Your task to perform on an android device: What's the weather going to be this weekend? Image 0: 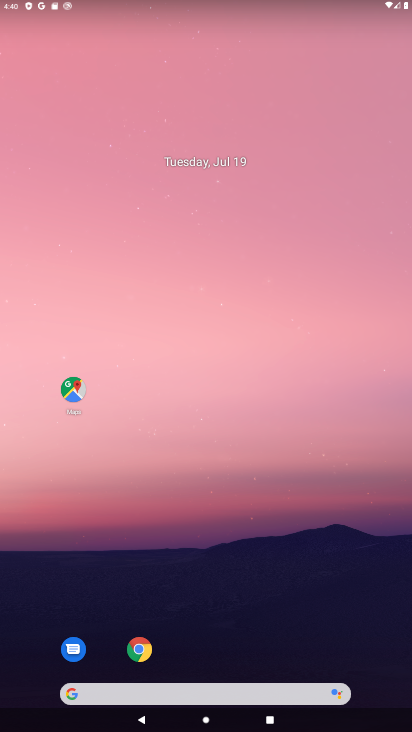
Step 0: press home button
Your task to perform on an android device: What's the weather going to be this weekend? Image 1: 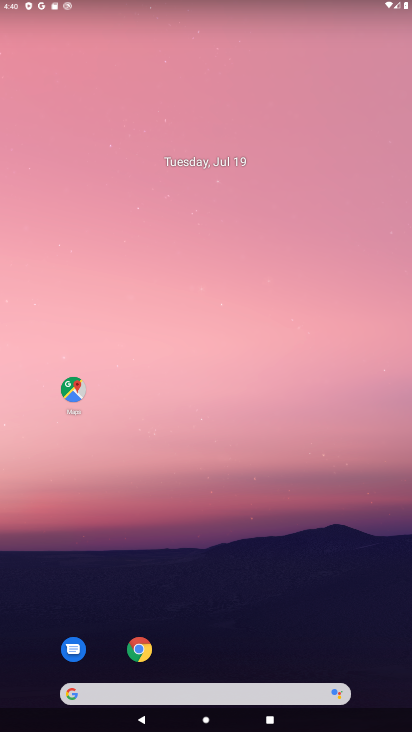
Step 1: drag from (220, 665) to (212, 1)
Your task to perform on an android device: What's the weather going to be this weekend? Image 2: 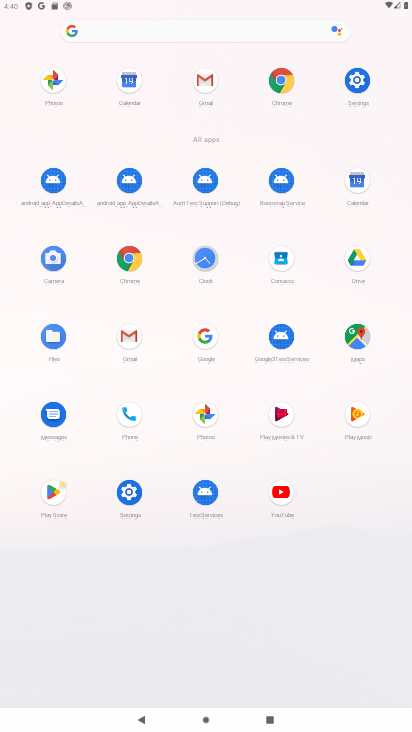
Step 2: press home button
Your task to perform on an android device: What's the weather going to be this weekend? Image 3: 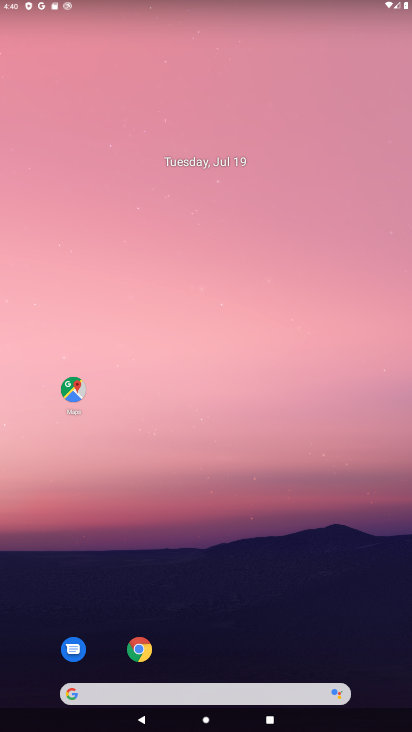
Step 3: click (152, 691)
Your task to perform on an android device: What's the weather going to be this weekend? Image 4: 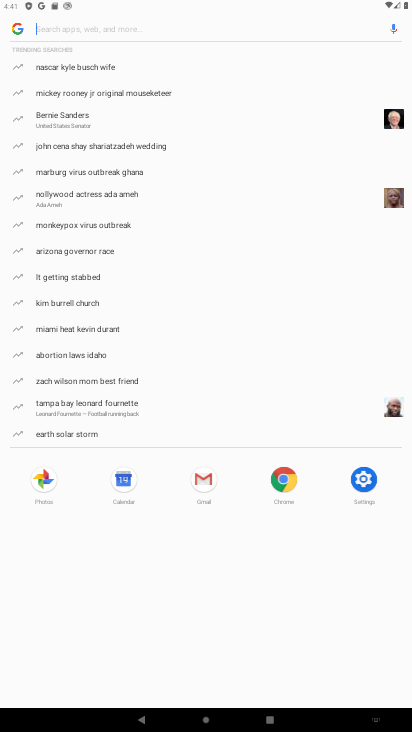
Step 4: type "weather"
Your task to perform on an android device: What's the weather going to be this weekend? Image 5: 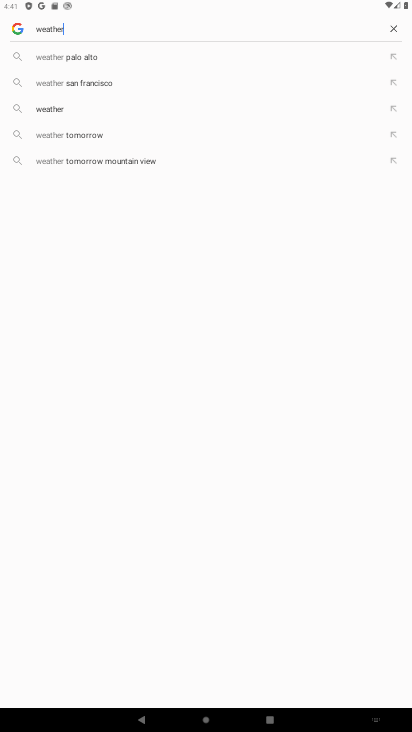
Step 5: click (74, 113)
Your task to perform on an android device: What's the weather going to be this weekend? Image 6: 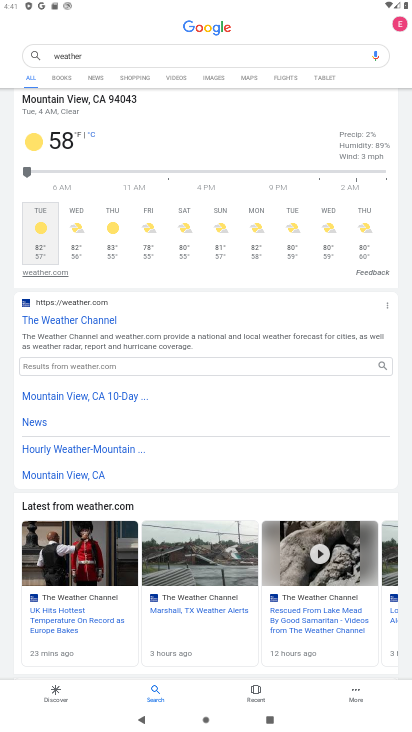
Step 6: click (80, 224)
Your task to perform on an android device: What's the weather going to be this weekend? Image 7: 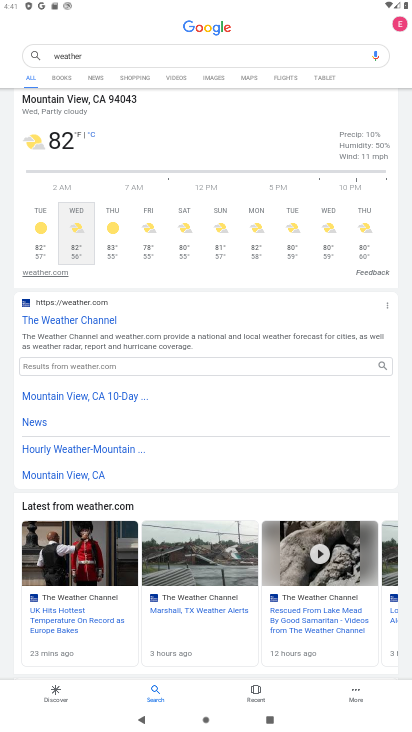
Step 7: task complete